Your task to perform on an android device: show emergency info Image 0: 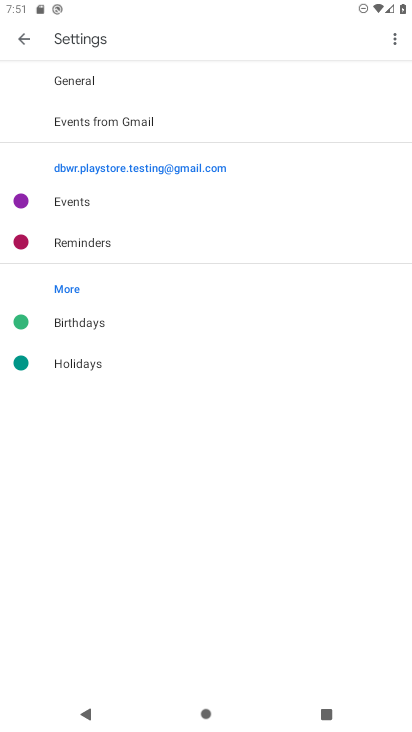
Step 0: press home button
Your task to perform on an android device: show emergency info Image 1: 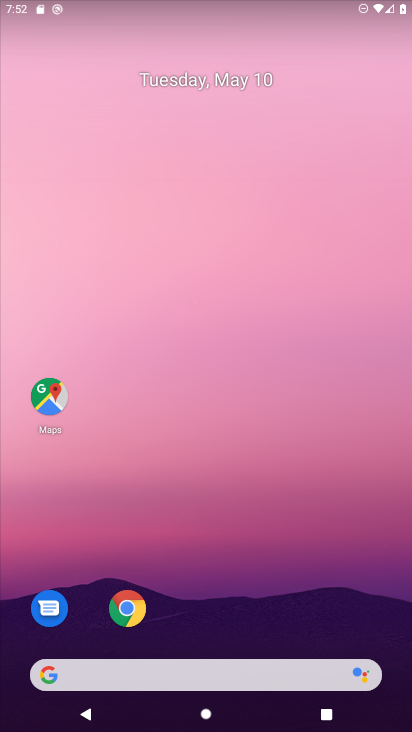
Step 1: drag from (224, 542) to (223, 127)
Your task to perform on an android device: show emergency info Image 2: 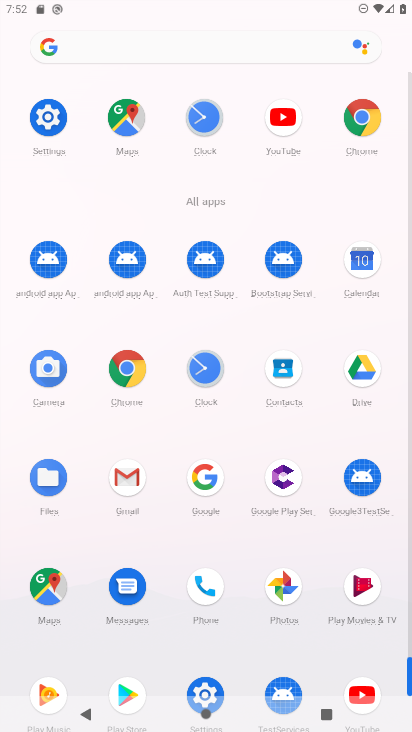
Step 2: click (48, 121)
Your task to perform on an android device: show emergency info Image 3: 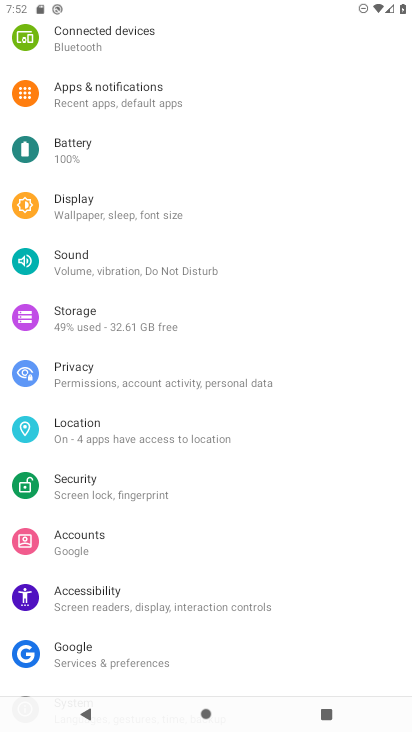
Step 3: drag from (198, 346) to (218, 255)
Your task to perform on an android device: show emergency info Image 4: 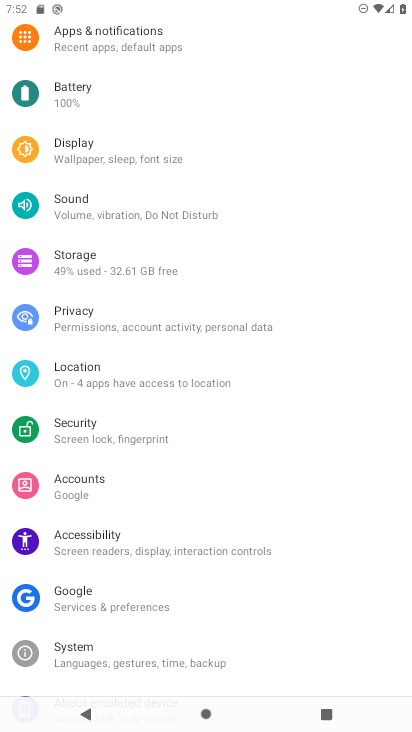
Step 4: drag from (163, 663) to (234, 242)
Your task to perform on an android device: show emergency info Image 5: 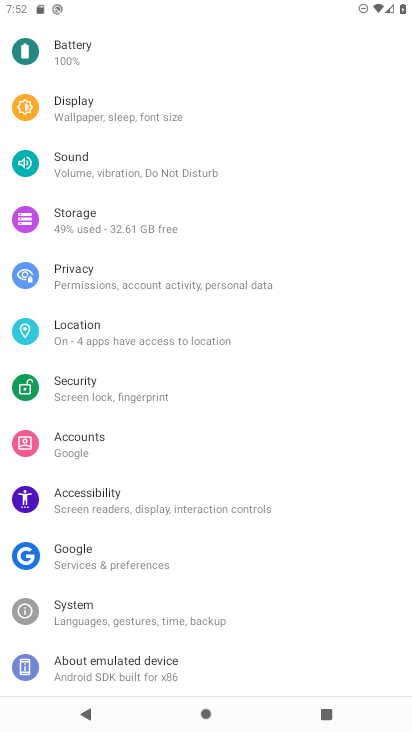
Step 5: click (166, 669)
Your task to perform on an android device: show emergency info Image 6: 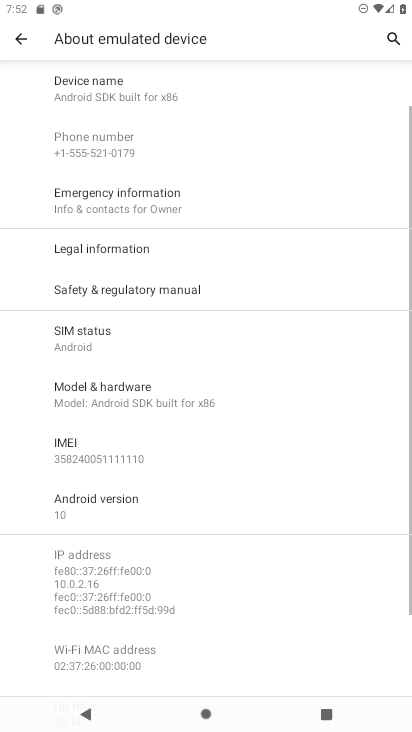
Step 6: click (153, 195)
Your task to perform on an android device: show emergency info Image 7: 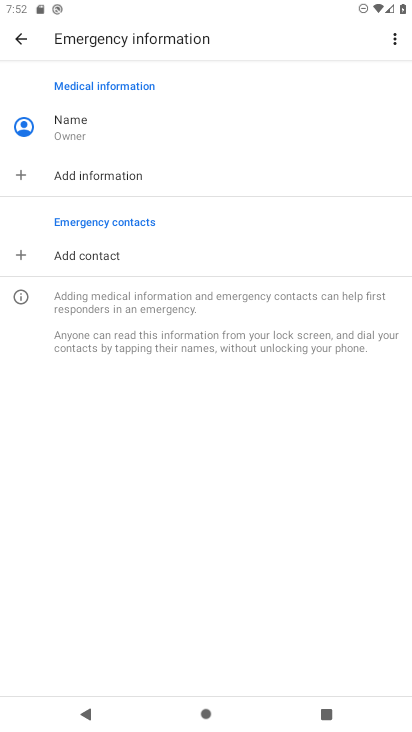
Step 7: task complete